Your task to perform on an android device: open app "Adobe Express: Graphic Design" (install if not already installed) and enter user name: "deliveries@gmail.com" and password: "regimentation" Image 0: 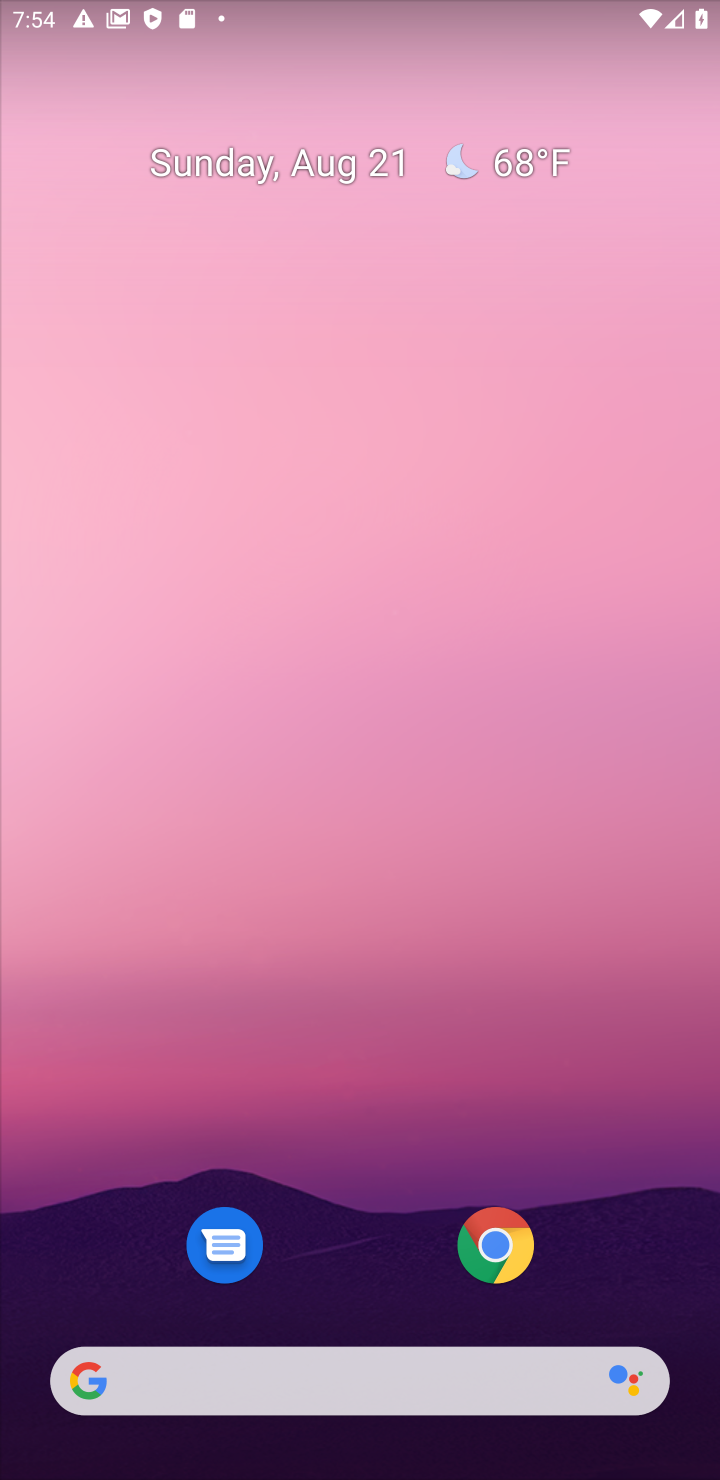
Step 0: drag from (312, 1303) to (228, 88)
Your task to perform on an android device: open app "Adobe Express: Graphic Design" (install if not already installed) and enter user name: "deliveries@gmail.com" and password: "regimentation" Image 1: 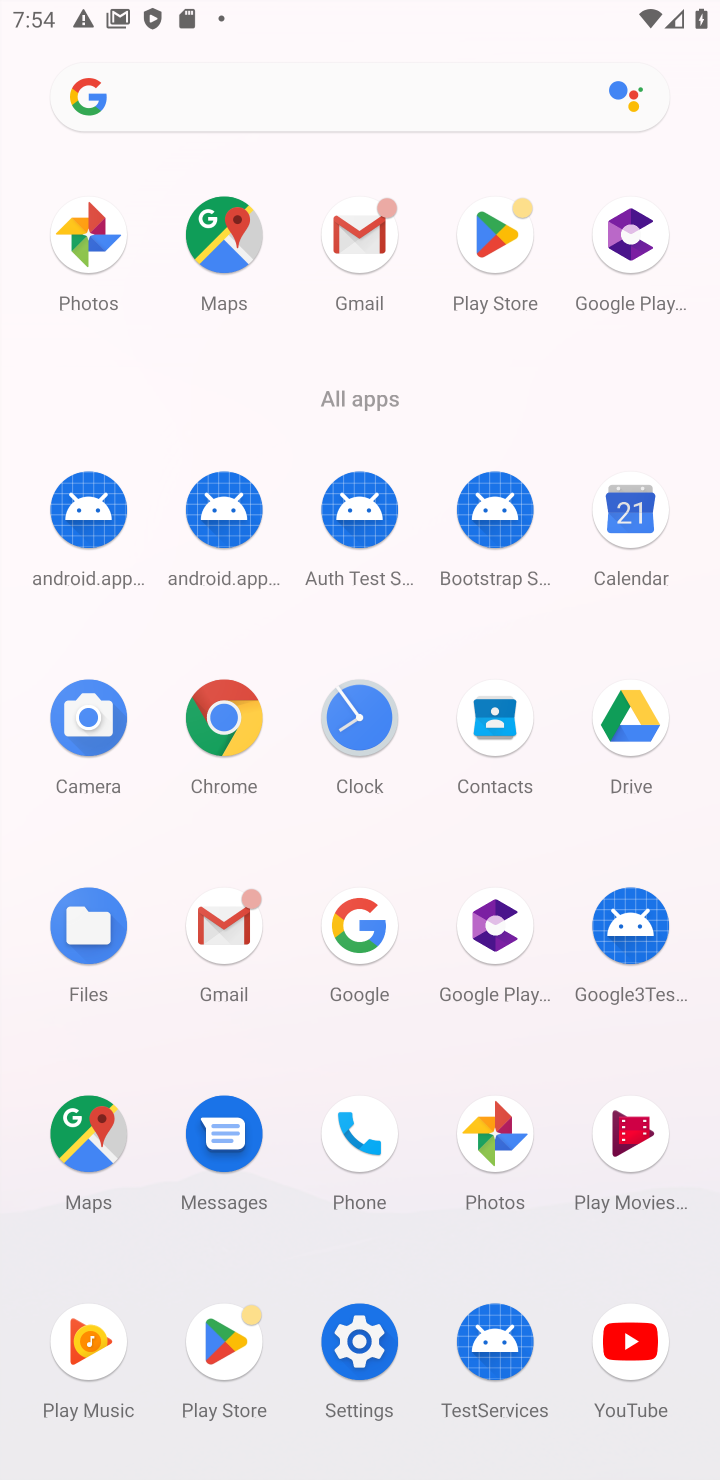
Step 1: click (221, 1354)
Your task to perform on an android device: open app "Adobe Express: Graphic Design" (install if not already installed) and enter user name: "deliveries@gmail.com" and password: "regimentation" Image 2: 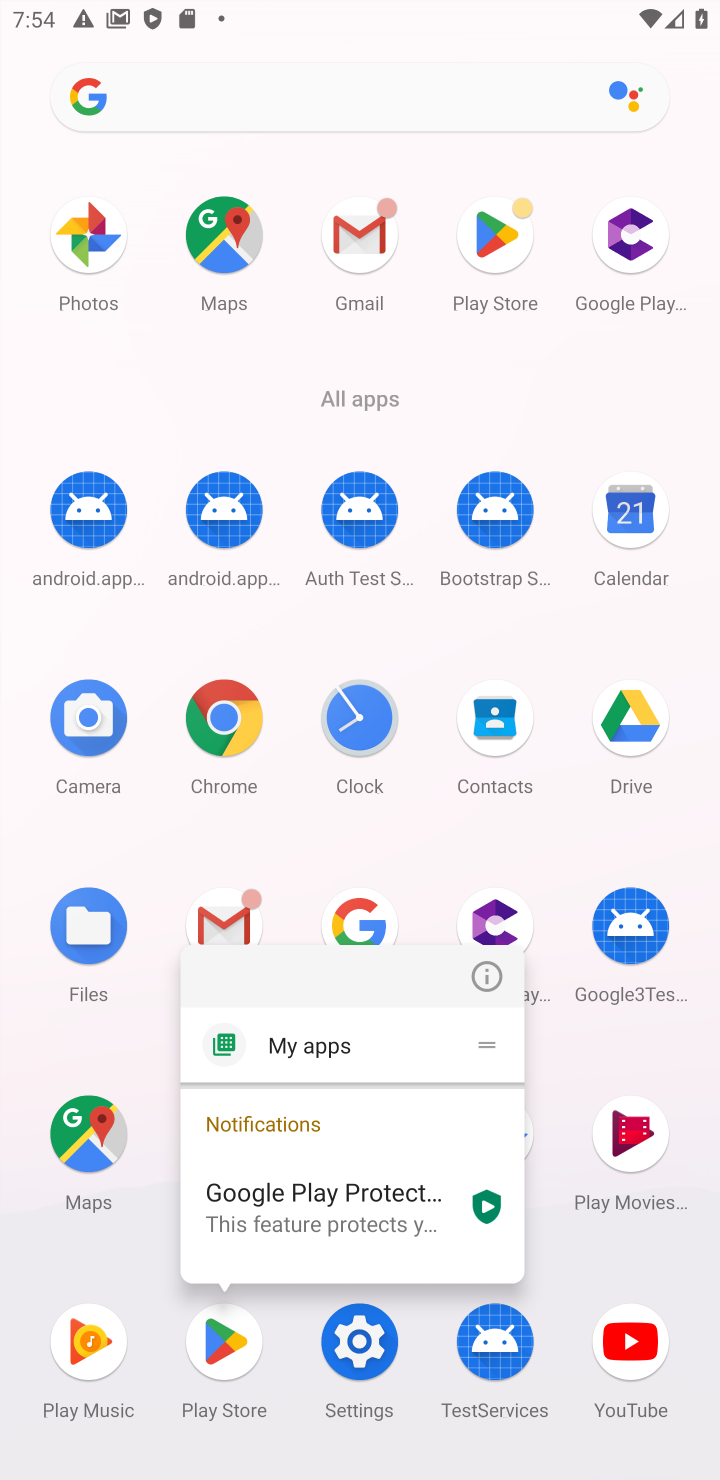
Step 2: click (386, 877)
Your task to perform on an android device: open app "Adobe Express: Graphic Design" (install if not already installed) and enter user name: "deliveries@gmail.com" and password: "regimentation" Image 3: 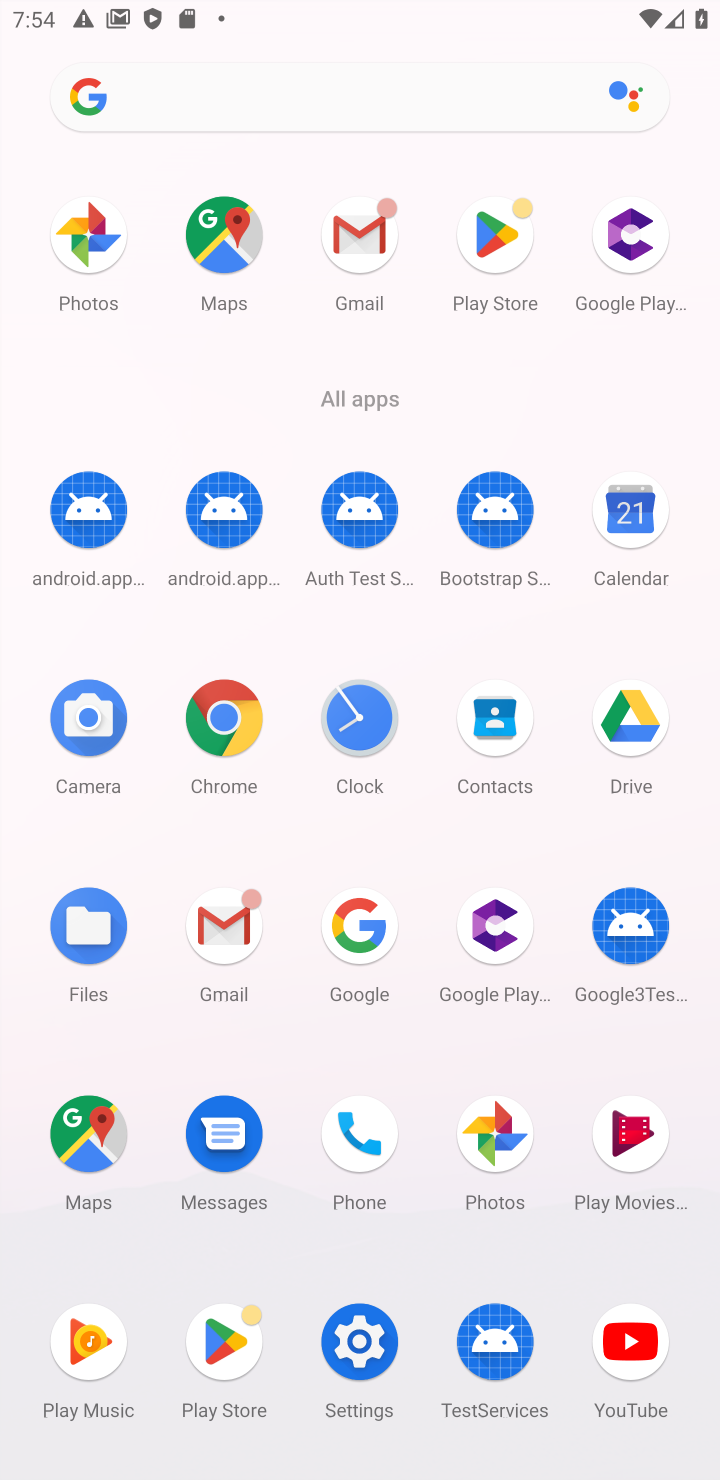
Step 3: click (221, 1372)
Your task to perform on an android device: open app "Adobe Express: Graphic Design" (install if not already installed) and enter user name: "deliveries@gmail.com" and password: "regimentation" Image 4: 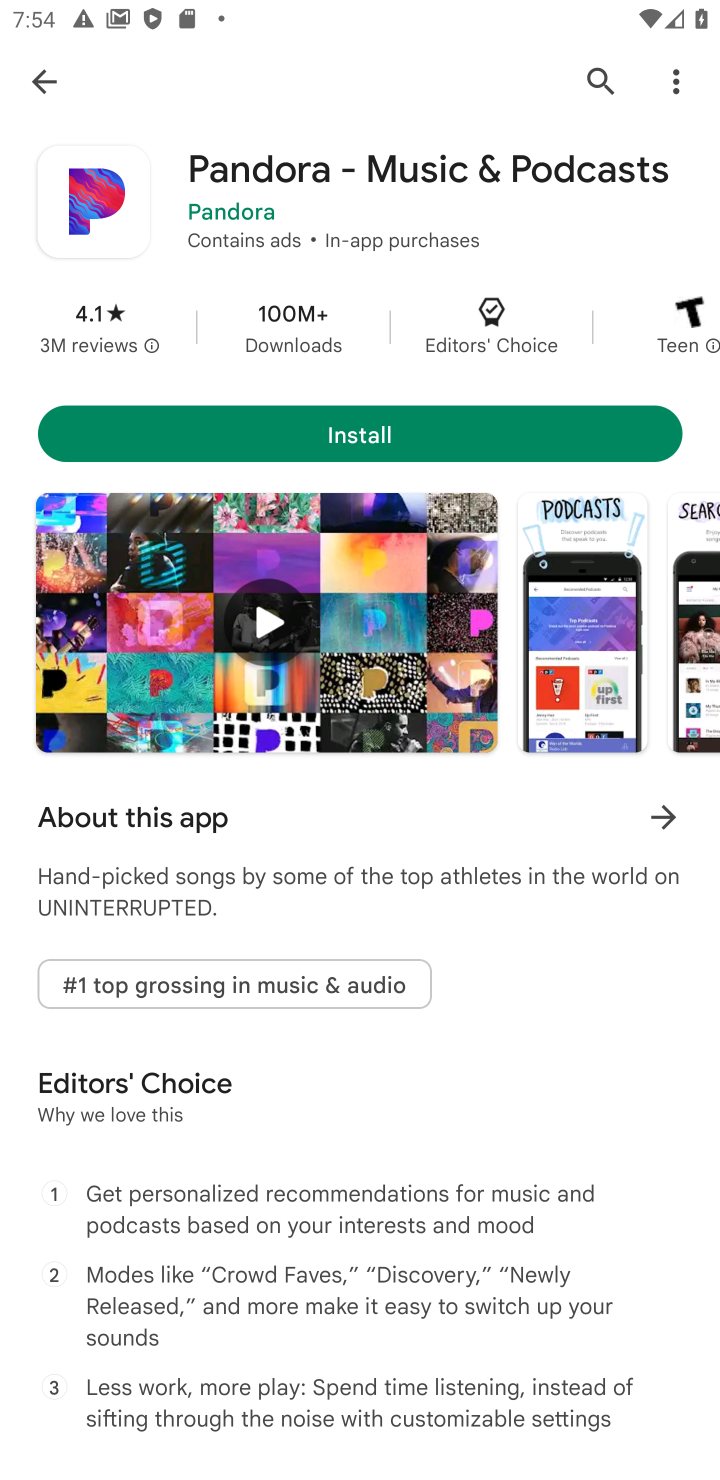
Step 4: click (30, 71)
Your task to perform on an android device: open app "Adobe Express: Graphic Design" (install if not already installed) and enter user name: "deliveries@gmail.com" and password: "regimentation" Image 5: 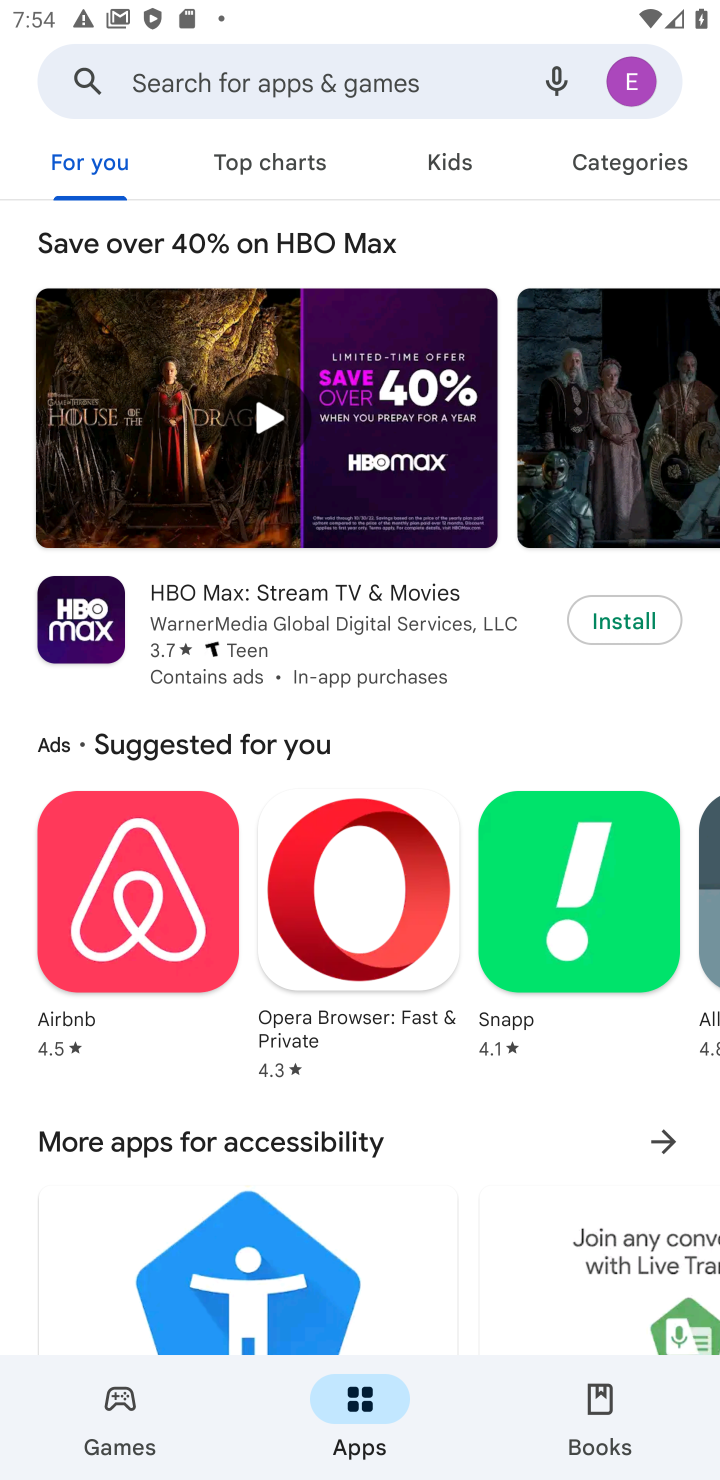
Step 5: click (221, 81)
Your task to perform on an android device: open app "Adobe Express: Graphic Design" (install if not already installed) and enter user name: "deliveries@gmail.com" and password: "regimentation" Image 6: 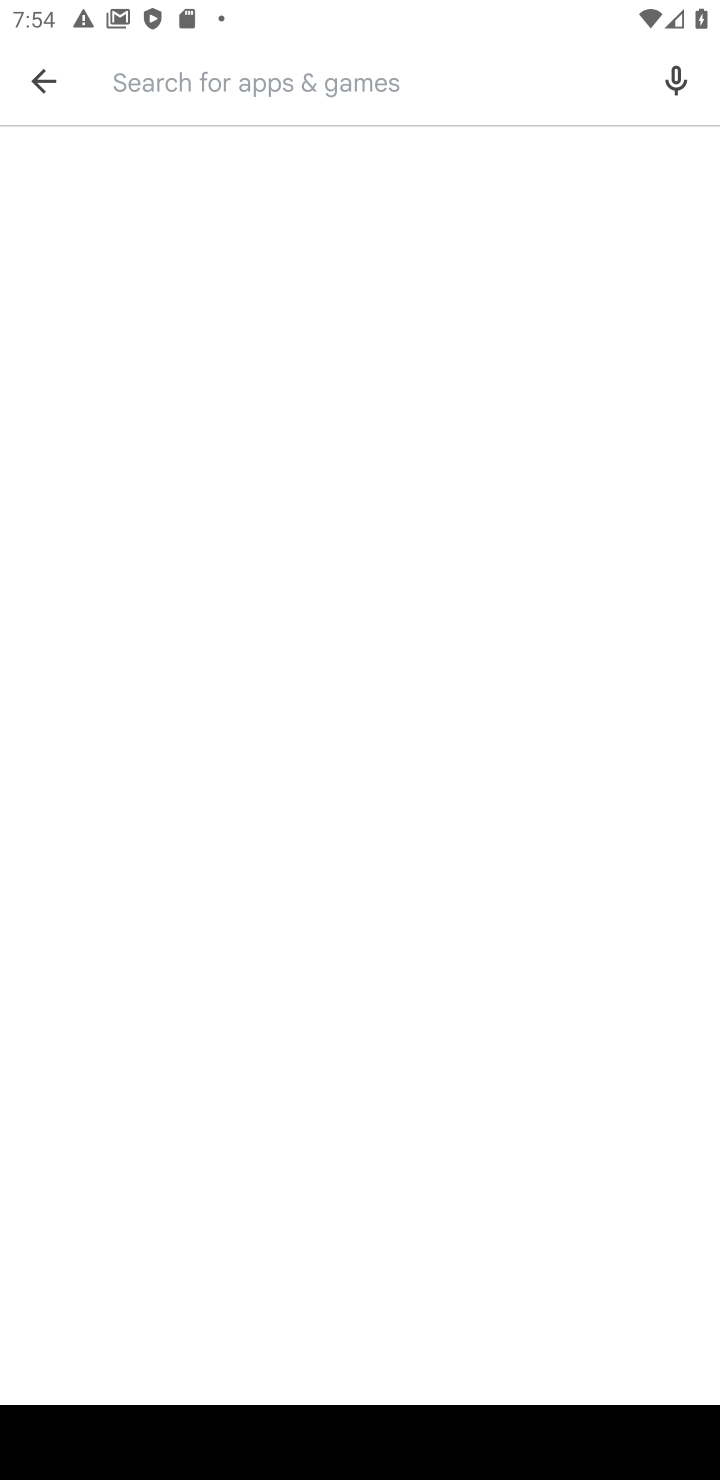
Step 6: type "Adobe Express: Graphic Desig"
Your task to perform on an android device: open app "Adobe Express: Graphic Design" (install if not already installed) and enter user name: "deliveries@gmail.com" and password: "regimentation" Image 7: 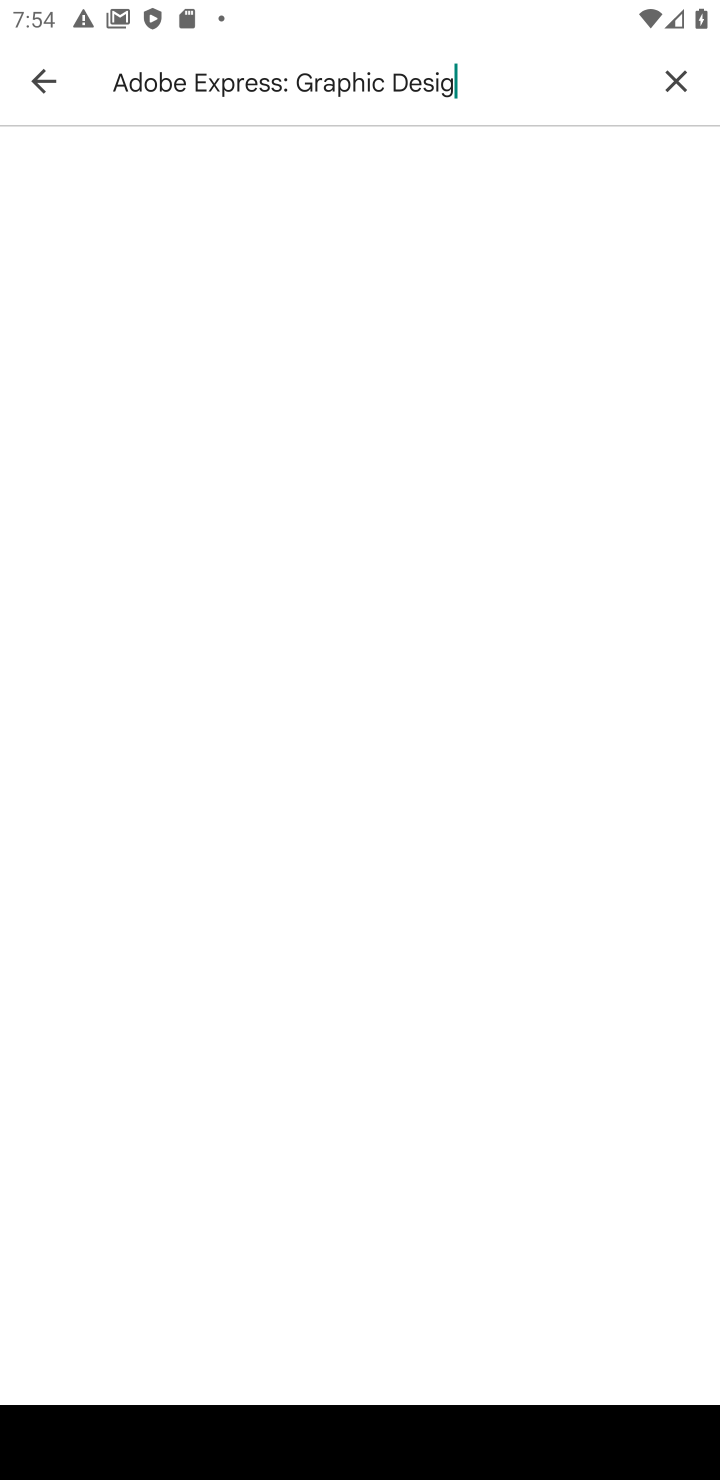
Step 7: type ""
Your task to perform on an android device: open app "Adobe Express: Graphic Design" (install if not already installed) and enter user name: "deliveries@gmail.com" and password: "regimentation" Image 8: 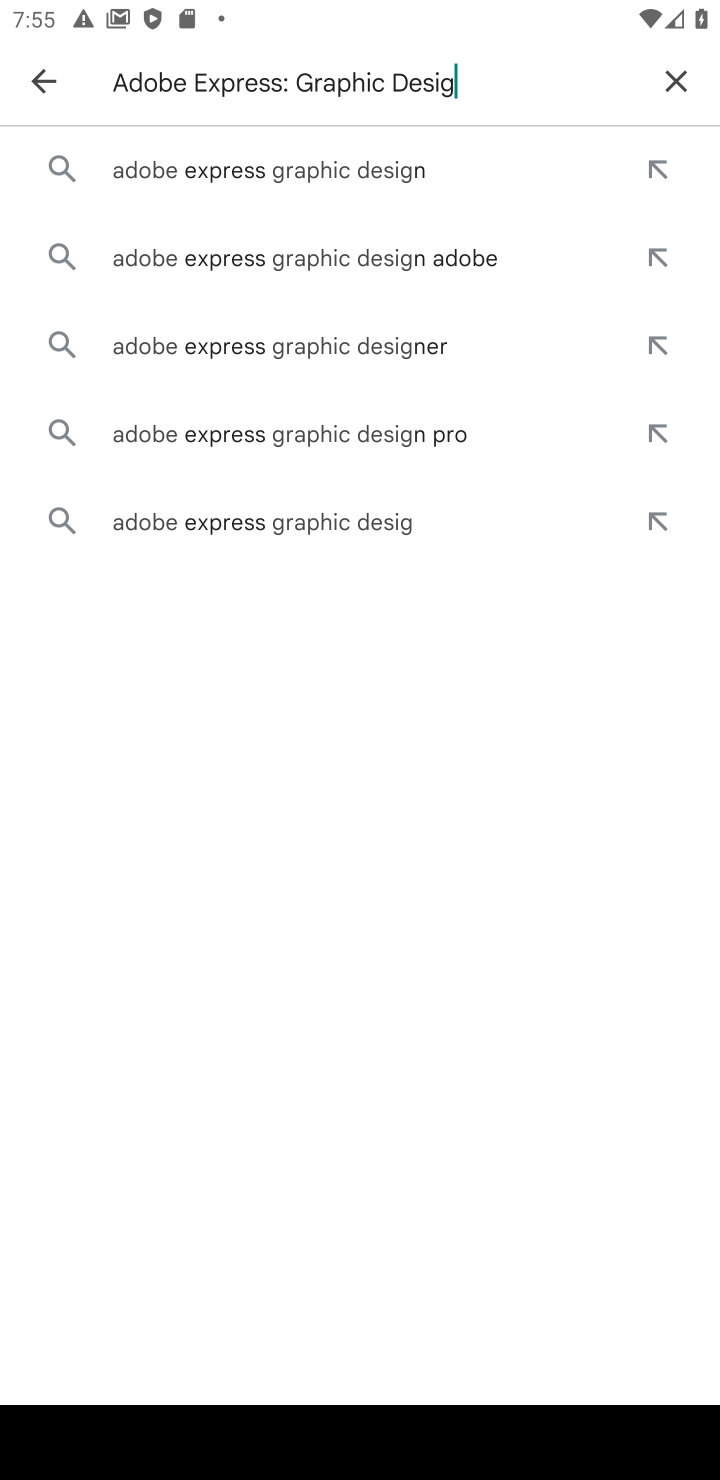
Step 8: click (288, 143)
Your task to perform on an android device: open app "Adobe Express: Graphic Design" (install if not already installed) and enter user name: "deliveries@gmail.com" and password: "regimentation" Image 9: 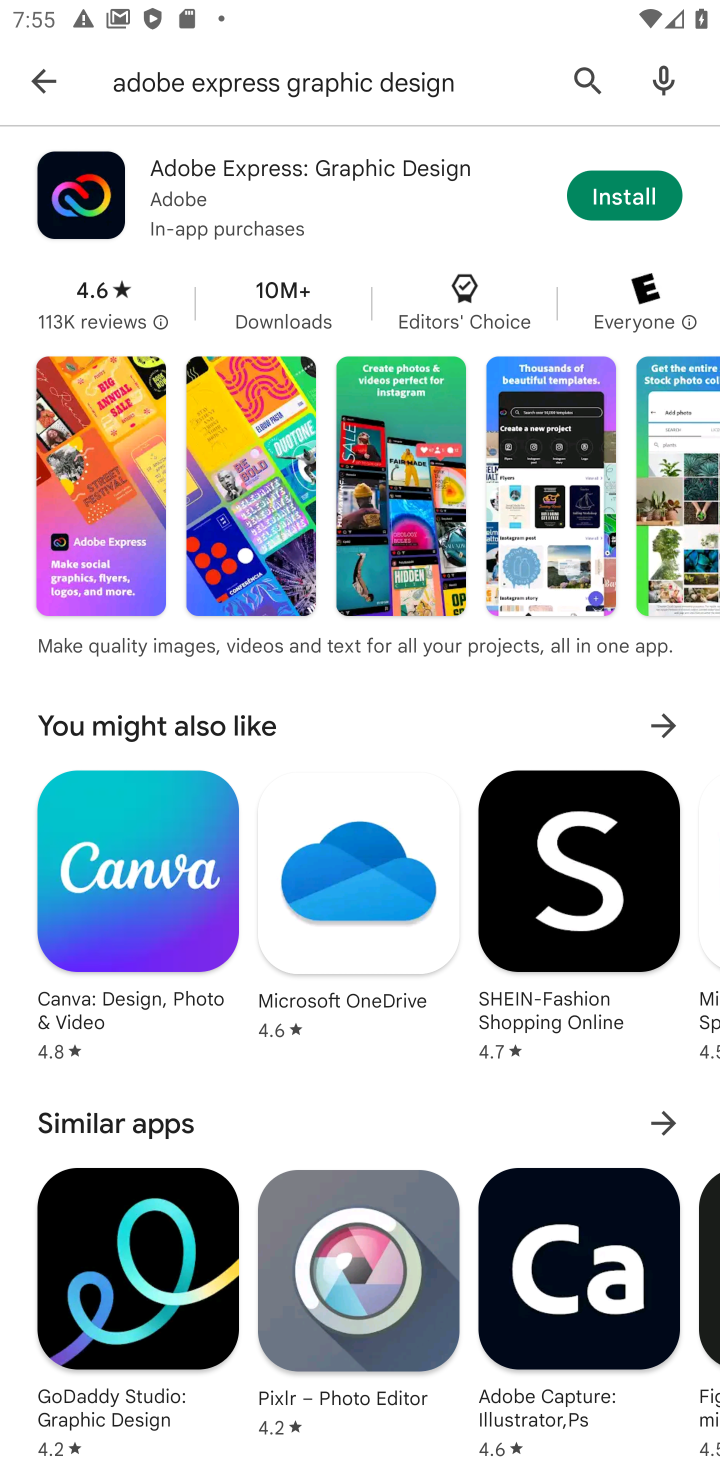
Step 9: click (635, 217)
Your task to perform on an android device: open app "Adobe Express: Graphic Design" (install if not already installed) and enter user name: "deliveries@gmail.com" and password: "regimentation" Image 10: 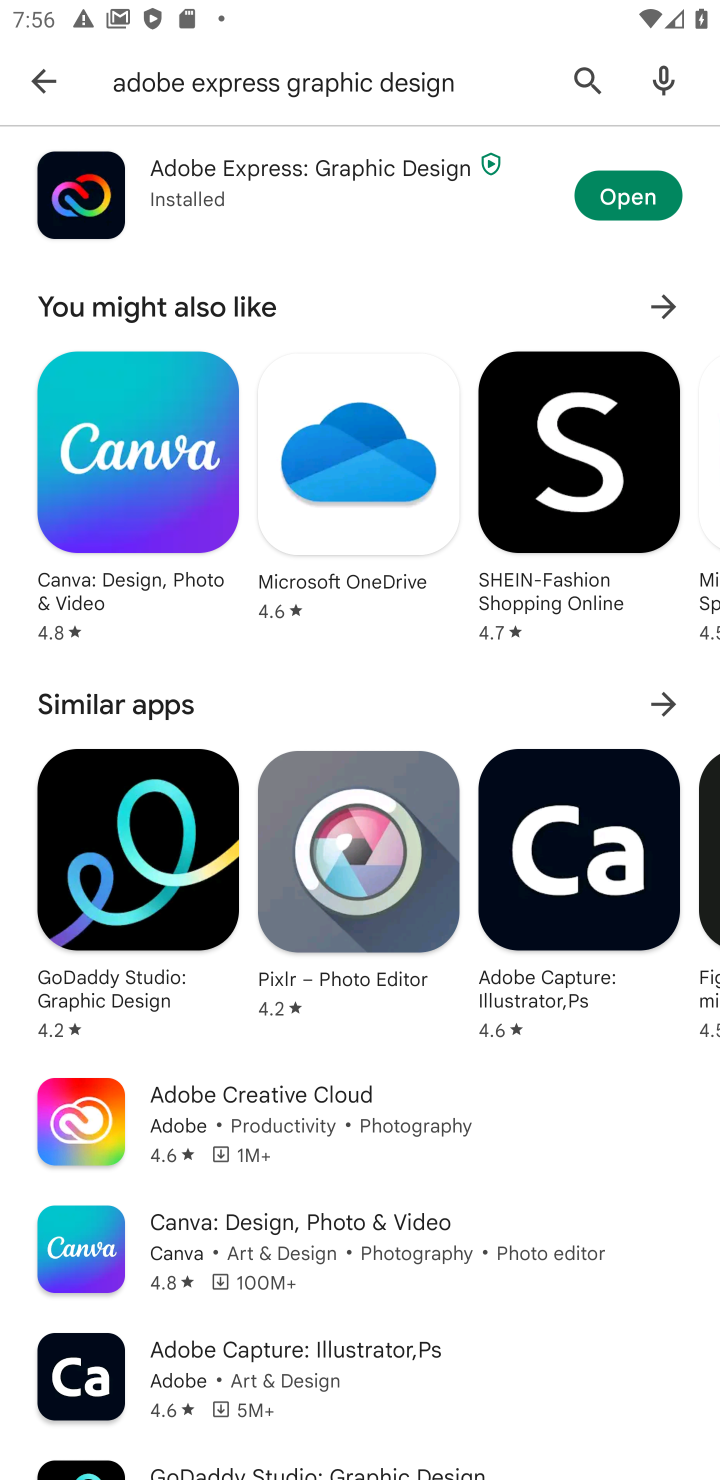
Step 10: click (618, 206)
Your task to perform on an android device: open app "Adobe Express: Graphic Design" (install if not already installed) and enter user name: "deliveries@gmail.com" and password: "regimentation" Image 11: 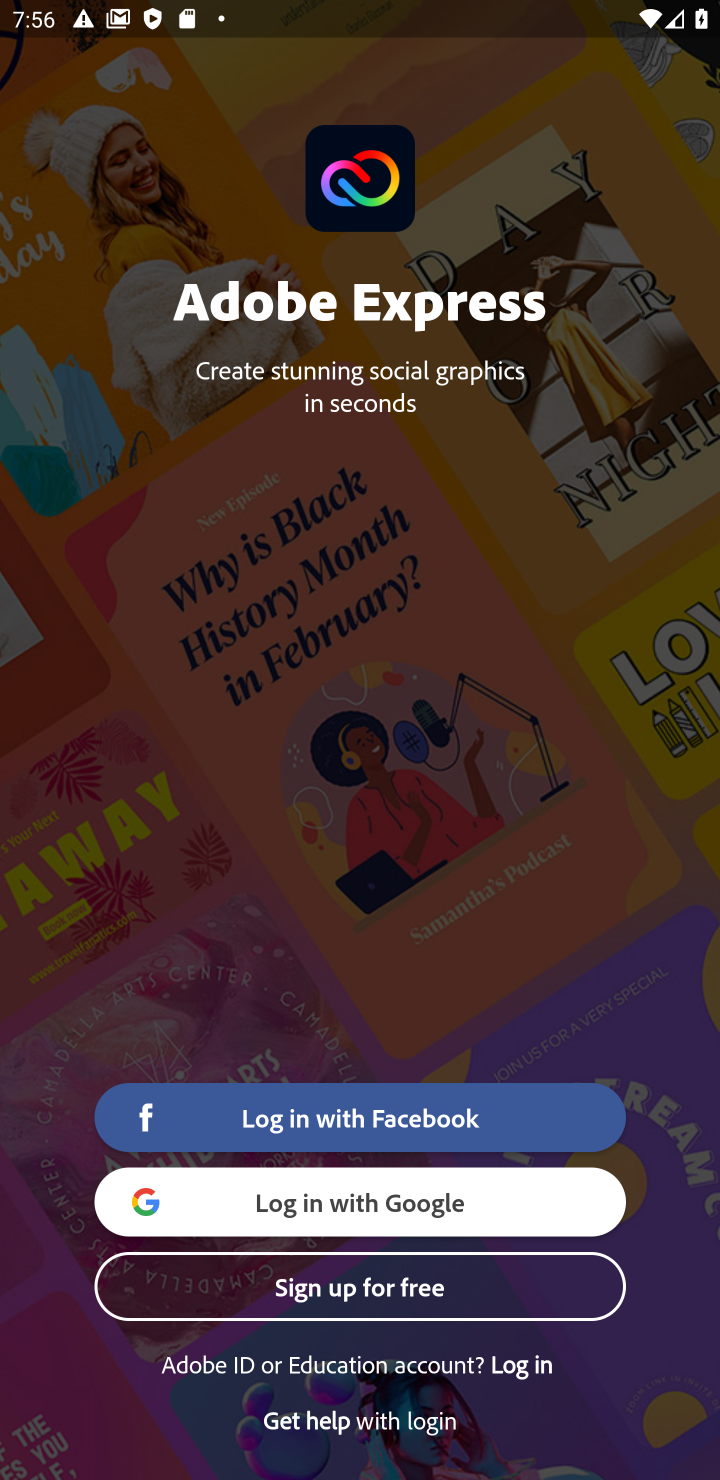
Step 11: click (527, 1377)
Your task to perform on an android device: open app "Adobe Express: Graphic Design" (install if not already installed) and enter user name: "deliveries@gmail.com" and password: "regimentation" Image 12: 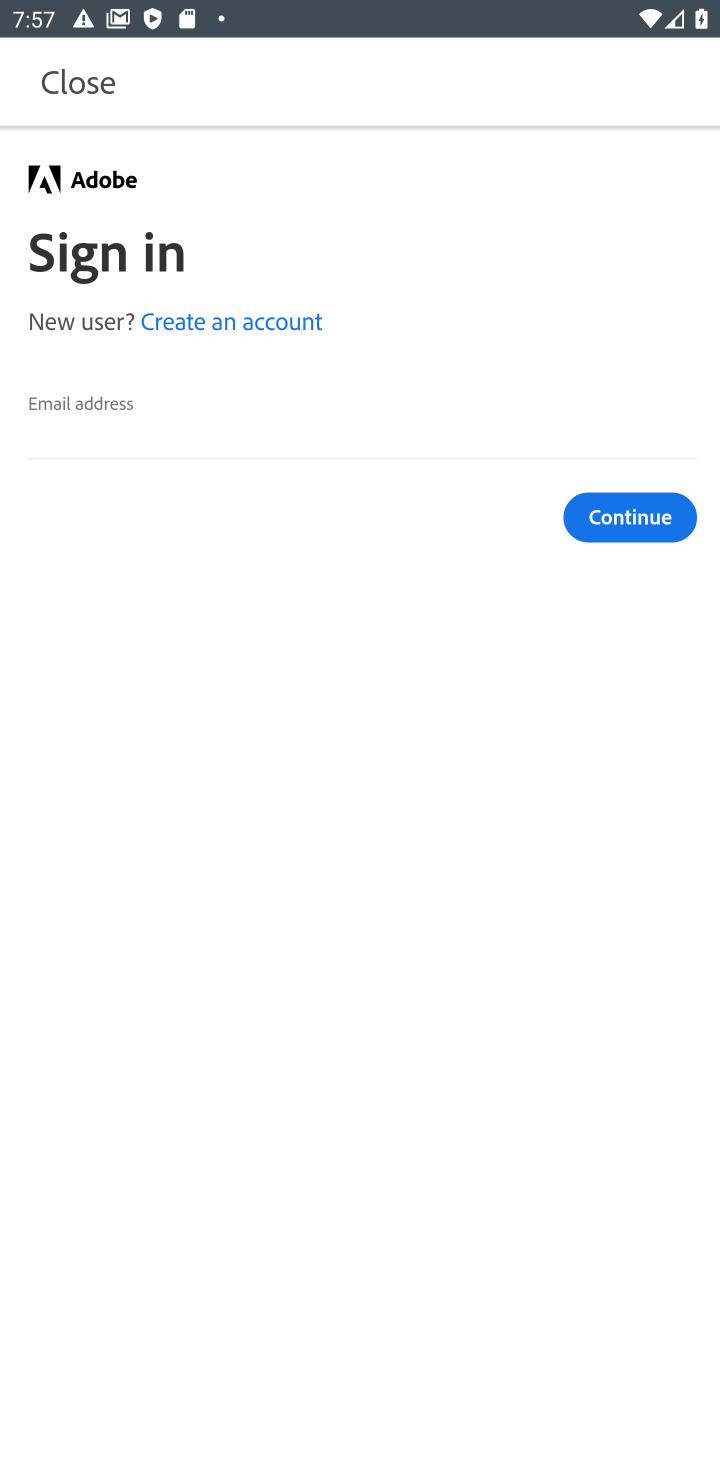
Step 12: click (133, 400)
Your task to perform on an android device: open app "Adobe Express: Graphic Design" (install if not already installed) and enter user name: "deliveries@gmail.com" and password: "regimentation" Image 13: 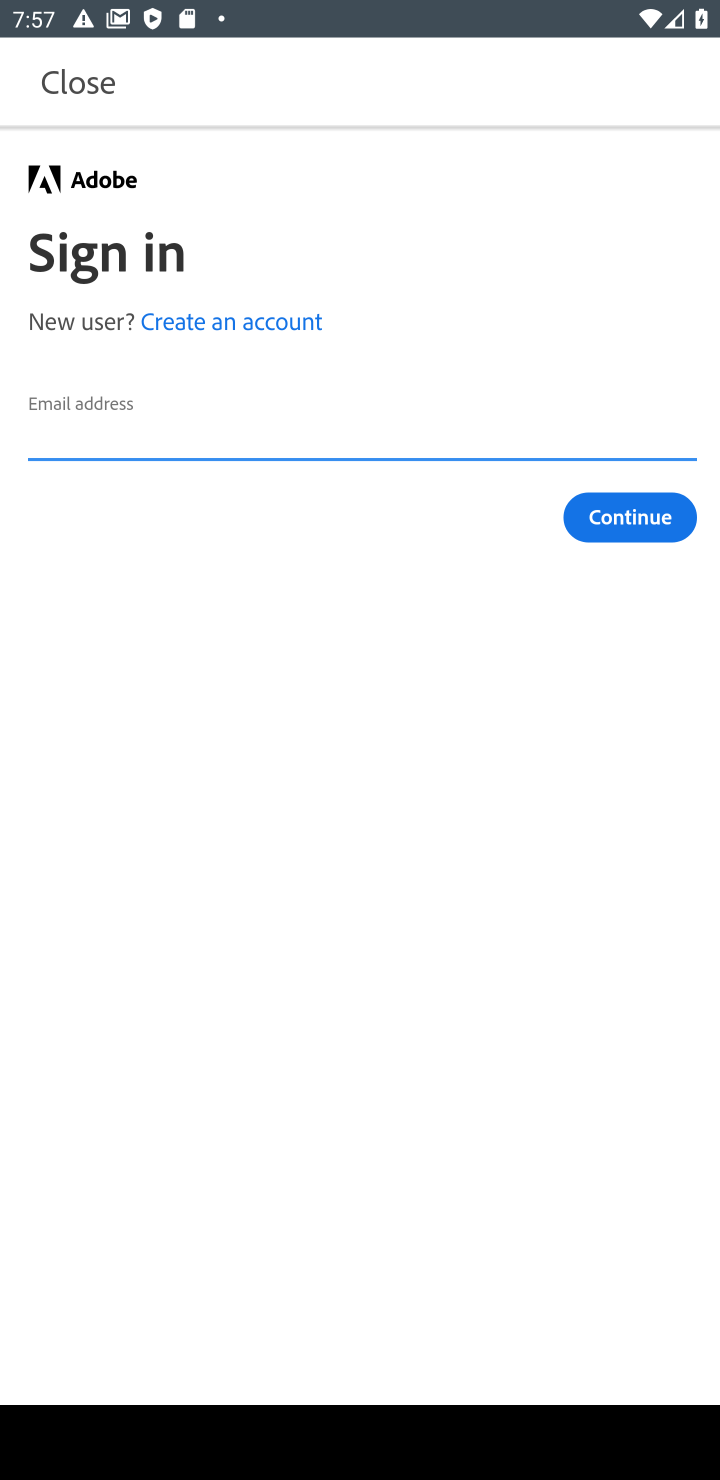
Step 13: type "deliveries@gmail.com"
Your task to perform on an android device: open app "Adobe Express: Graphic Design" (install if not already installed) and enter user name: "deliveries@gmail.com" and password: "regimentation" Image 14: 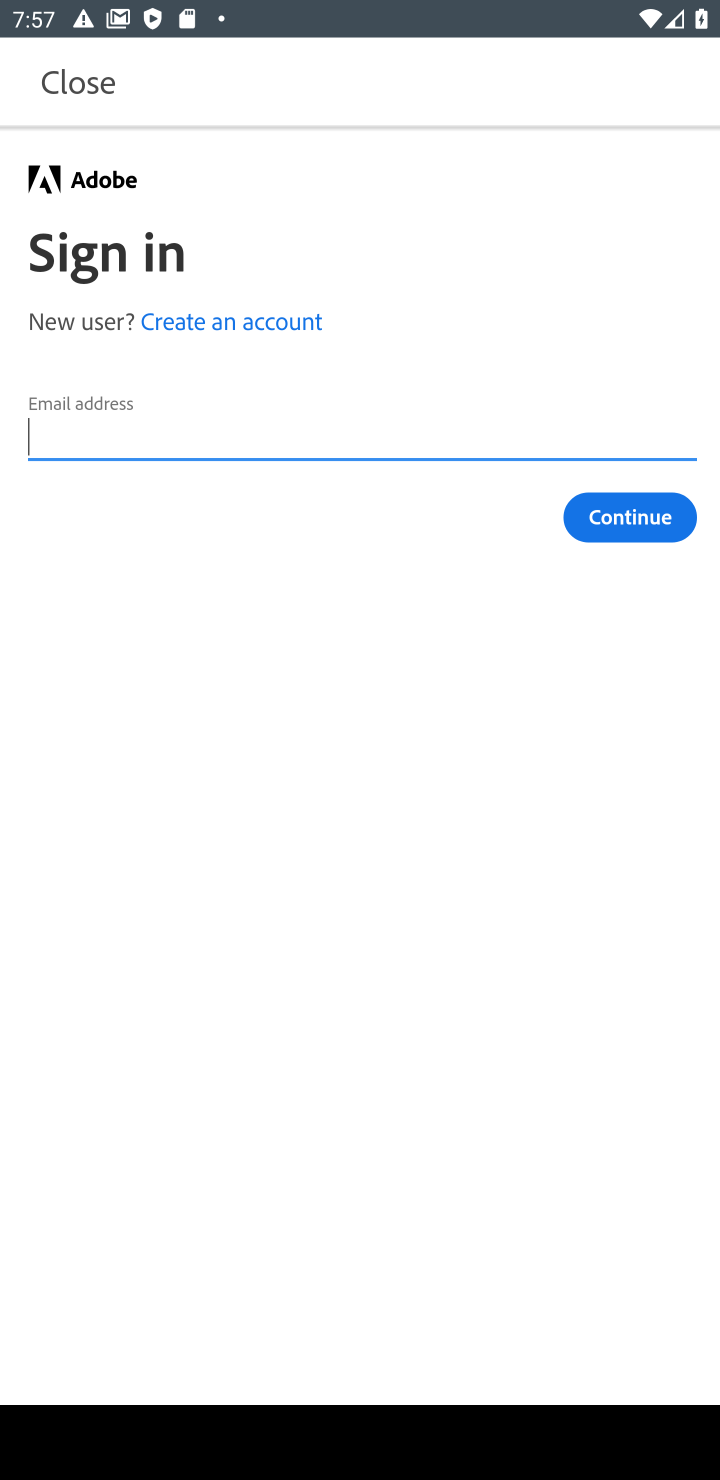
Step 14: click (610, 526)
Your task to perform on an android device: open app "Adobe Express: Graphic Design" (install if not already installed) and enter user name: "deliveries@gmail.com" and password: "regimentation" Image 15: 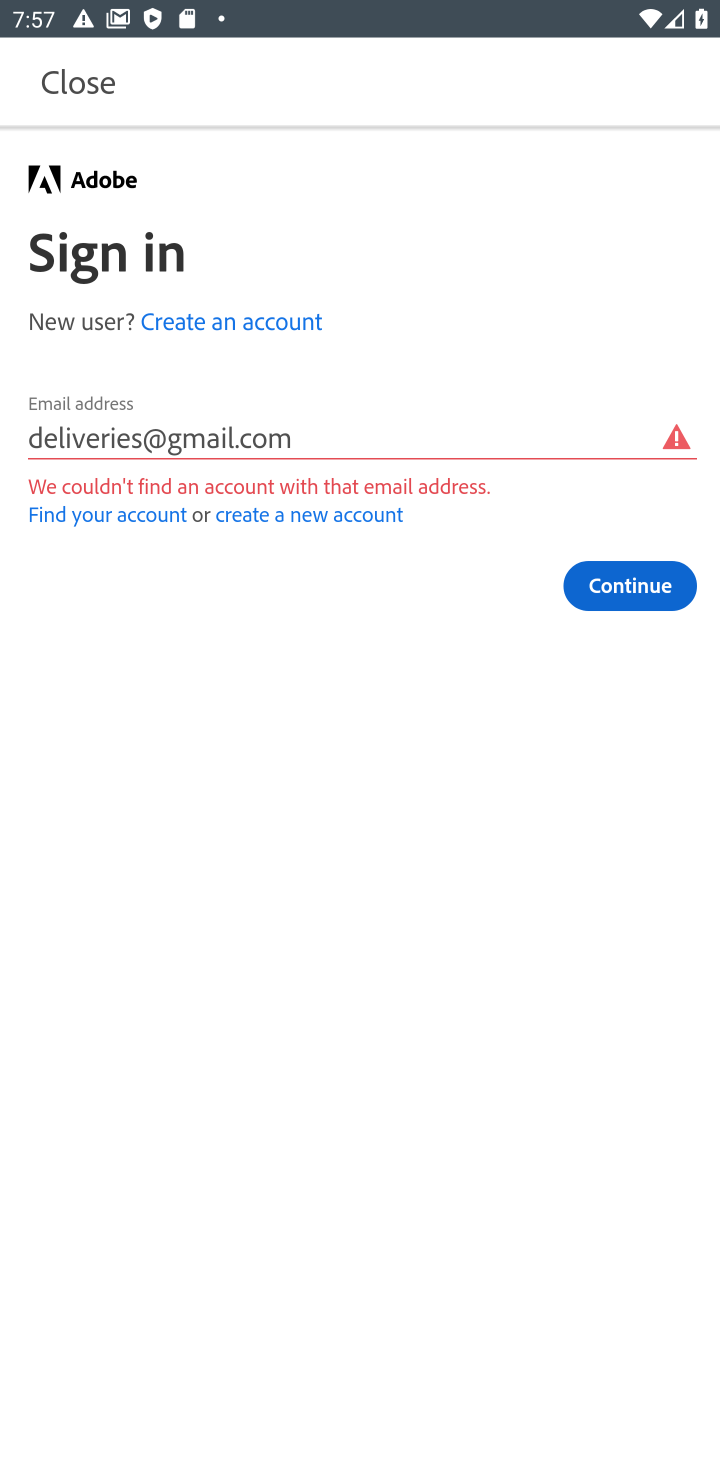
Step 15: click (684, 597)
Your task to perform on an android device: open app "Adobe Express: Graphic Design" (install if not already installed) and enter user name: "deliveries@gmail.com" and password: "regimentation" Image 16: 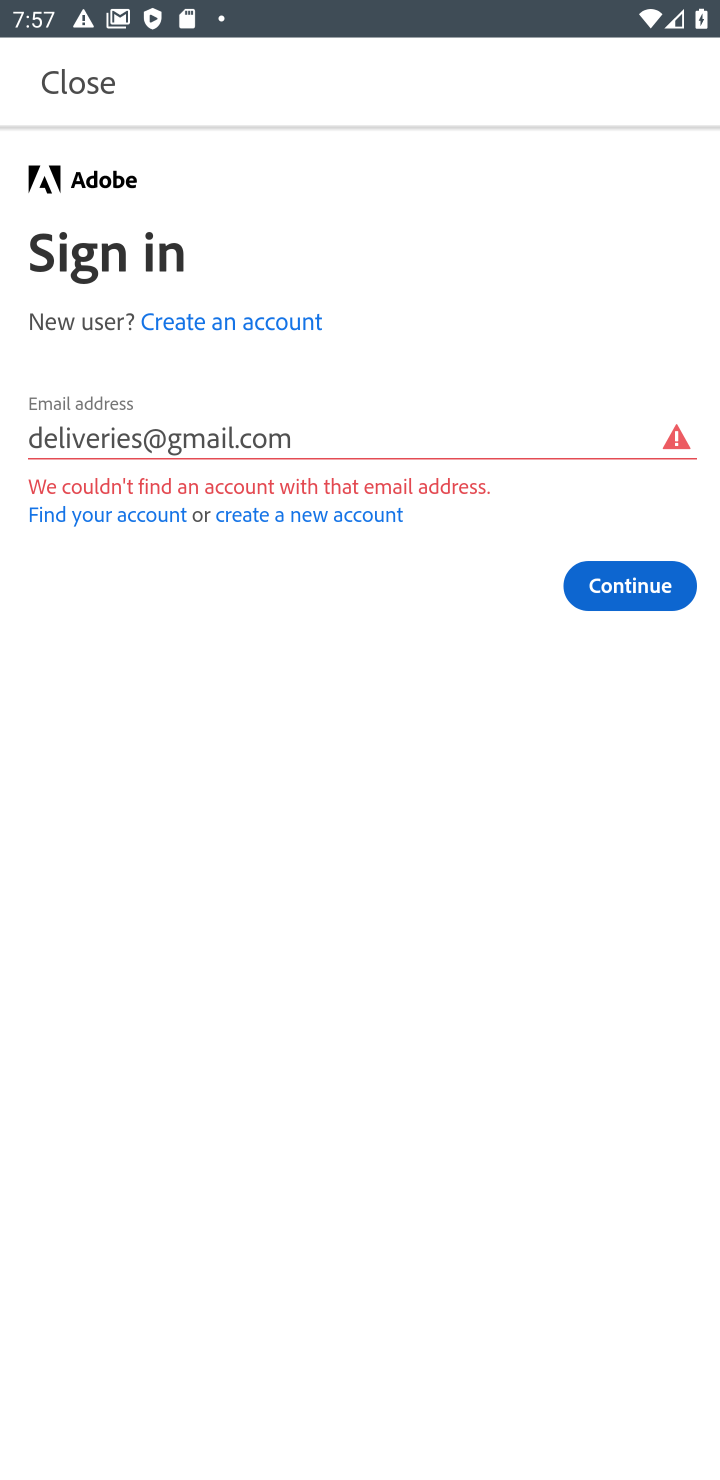
Step 16: task complete